Your task to perform on an android device: Find coffee shops on Maps Image 0: 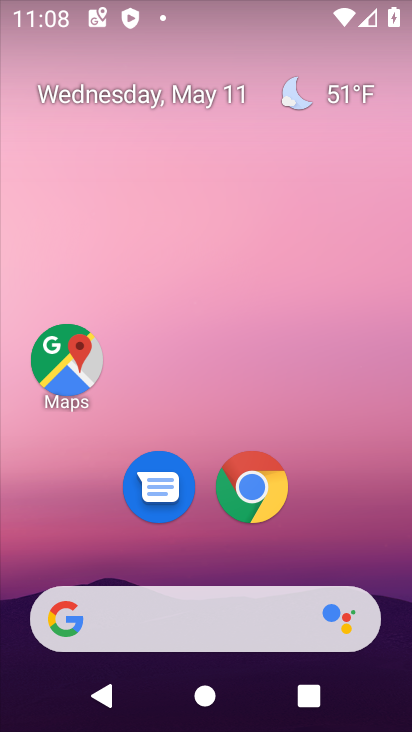
Step 0: click (68, 353)
Your task to perform on an android device: Find coffee shops on Maps Image 1: 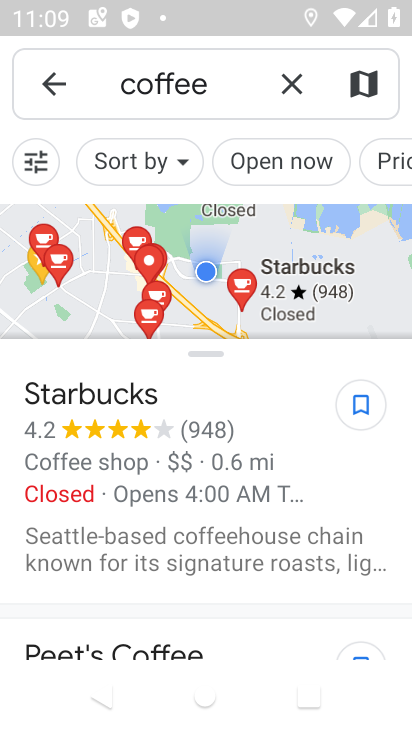
Step 1: task complete